Your task to perform on an android device: Clear the cart on ebay. Image 0: 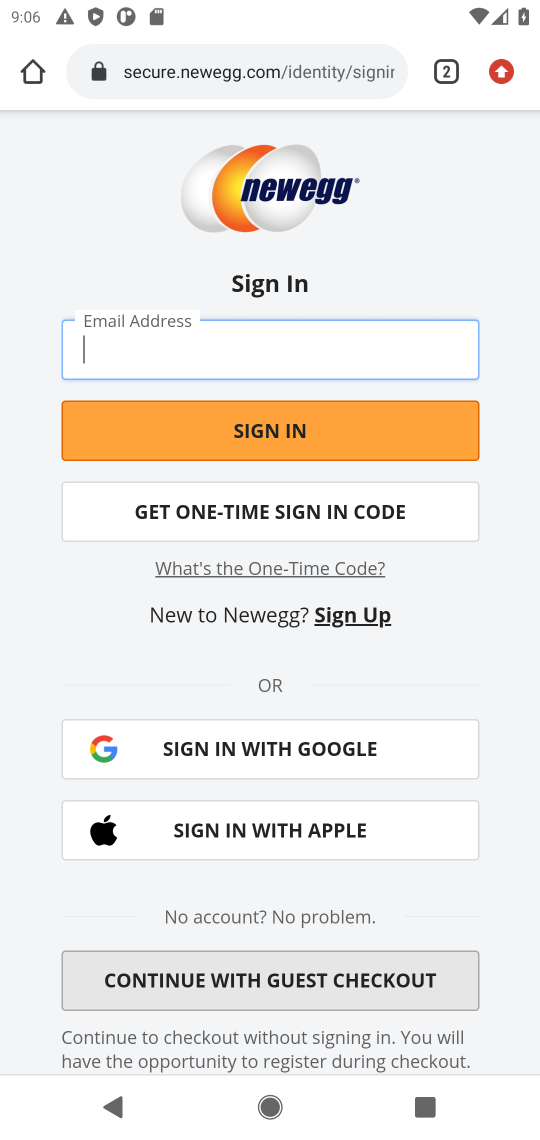
Step 0: click (153, 70)
Your task to perform on an android device: Clear the cart on ebay. Image 1: 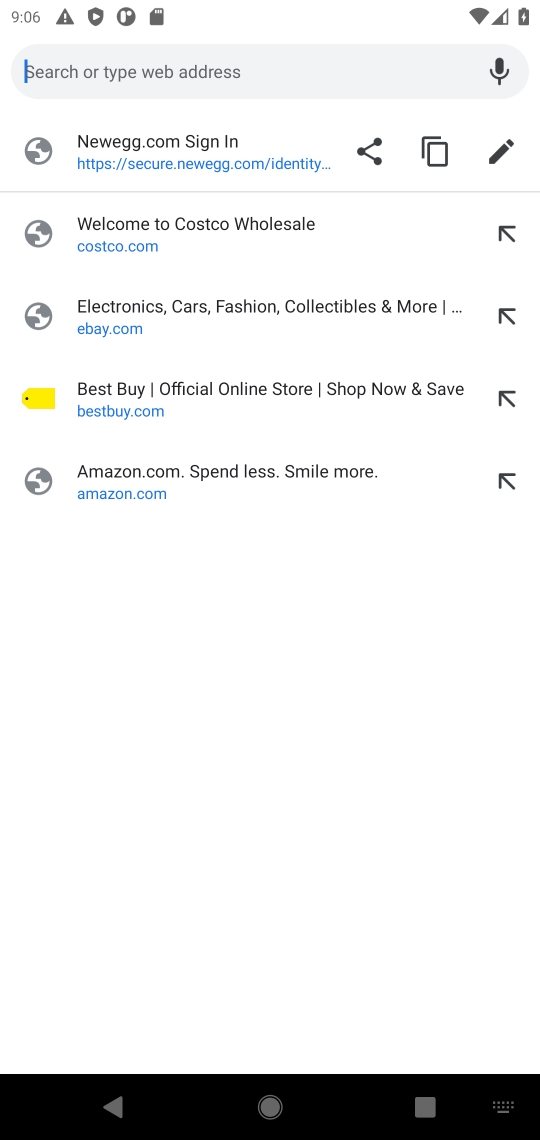
Step 1: click (95, 322)
Your task to perform on an android device: Clear the cart on ebay. Image 2: 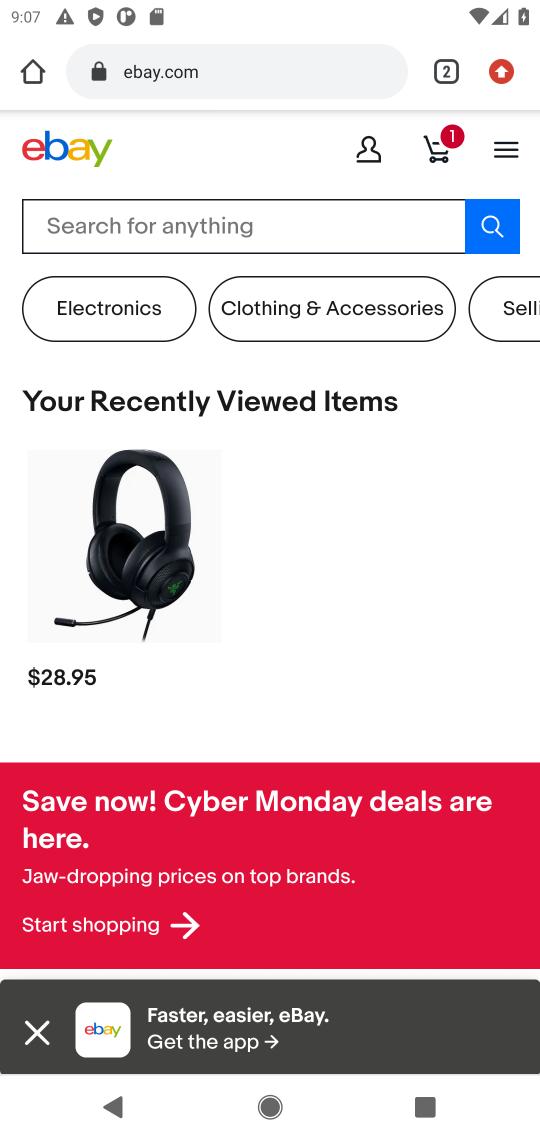
Step 2: click (428, 155)
Your task to perform on an android device: Clear the cart on ebay. Image 3: 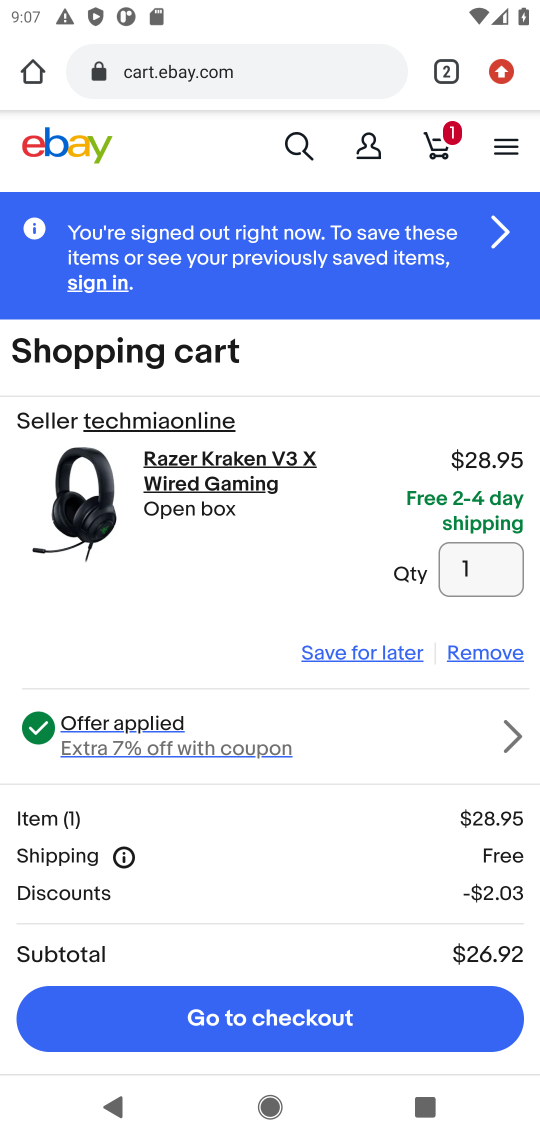
Step 3: click (495, 652)
Your task to perform on an android device: Clear the cart on ebay. Image 4: 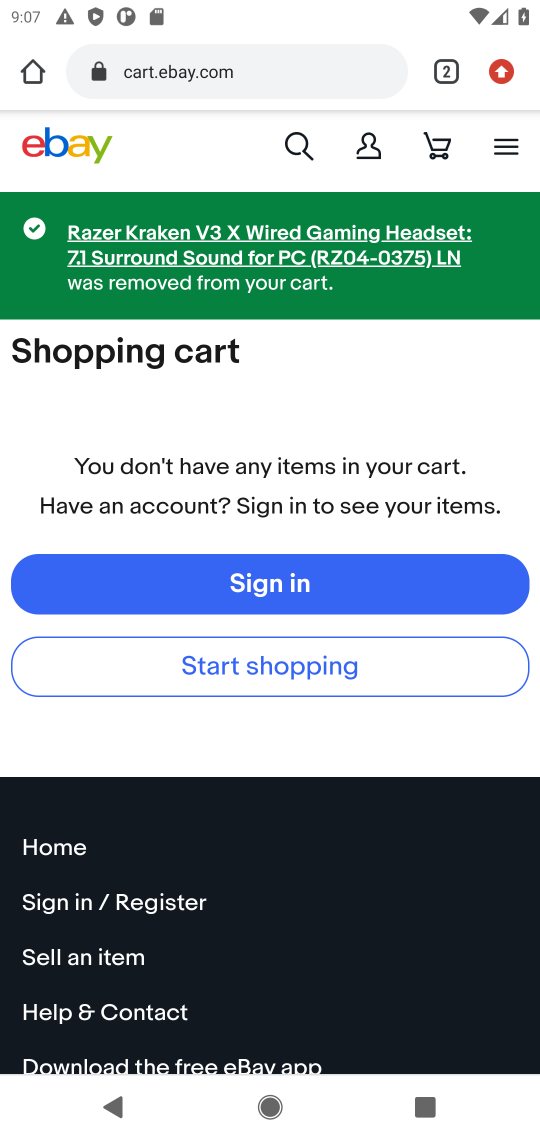
Step 4: task complete